Your task to perform on an android device: Go to Google maps Image 0: 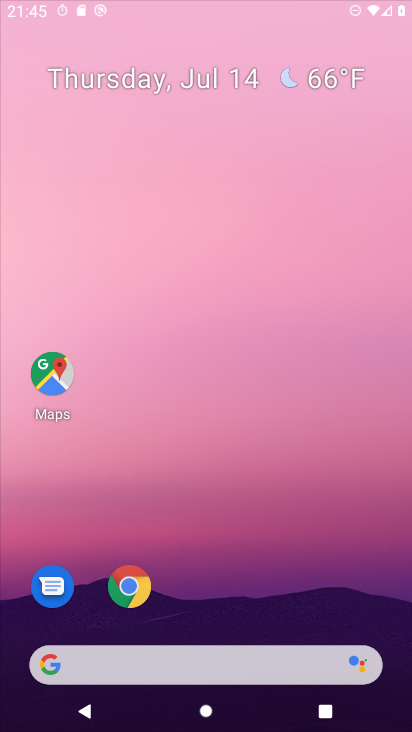
Step 0: press home button
Your task to perform on an android device: Go to Google maps Image 1: 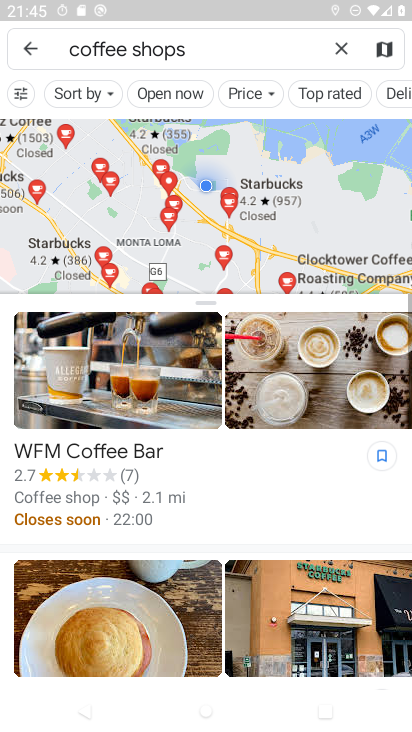
Step 1: drag from (329, 346) to (341, 120)
Your task to perform on an android device: Go to Google maps Image 2: 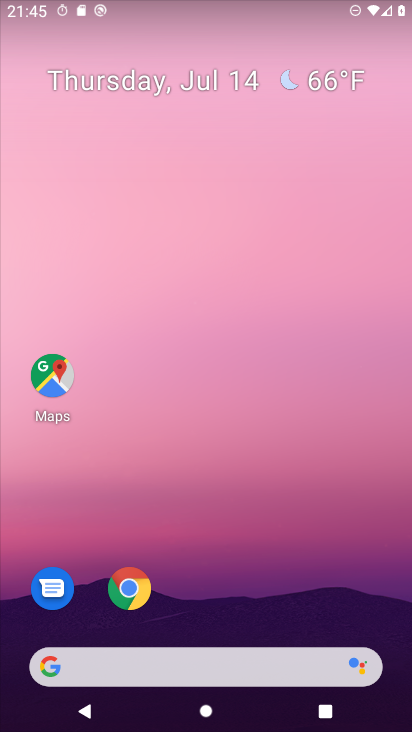
Step 2: drag from (342, 594) to (337, 69)
Your task to perform on an android device: Go to Google maps Image 3: 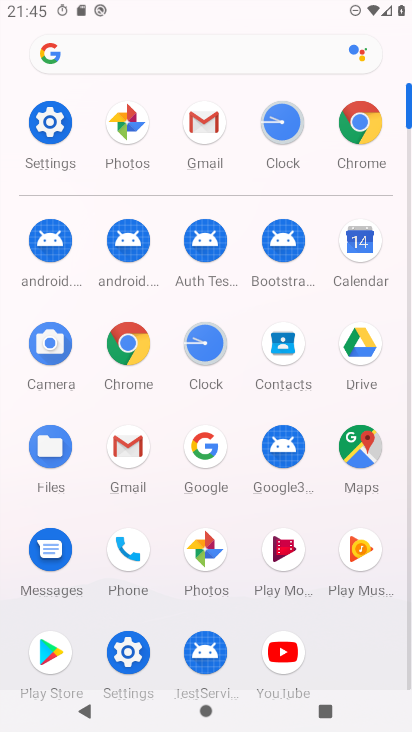
Step 3: click (356, 449)
Your task to perform on an android device: Go to Google maps Image 4: 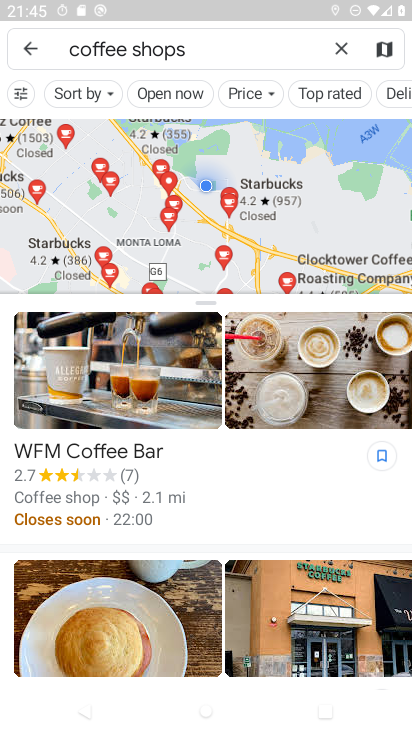
Step 4: task complete